Your task to perform on an android device: turn on wifi Image 0: 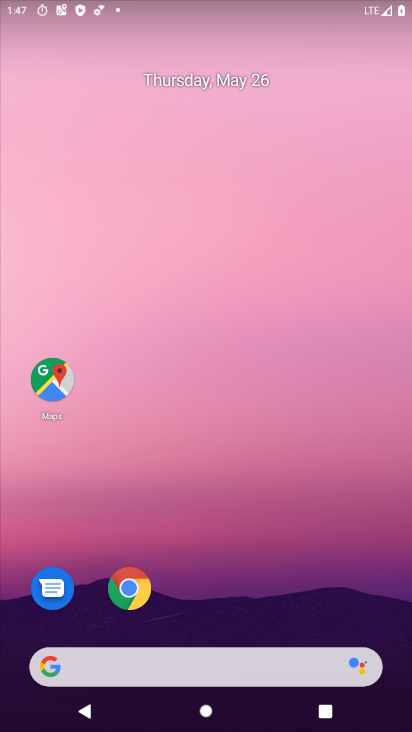
Step 0: drag from (385, 702) to (332, 153)
Your task to perform on an android device: turn on wifi Image 1: 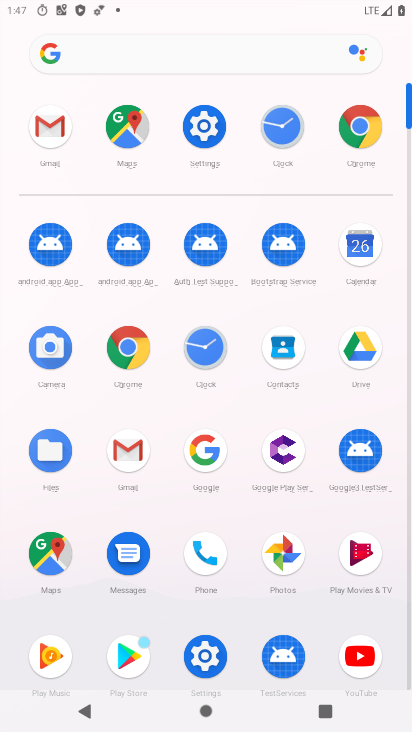
Step 1: click (199, 131)
Your task to perform on an android device: turn on wifi Image 2: 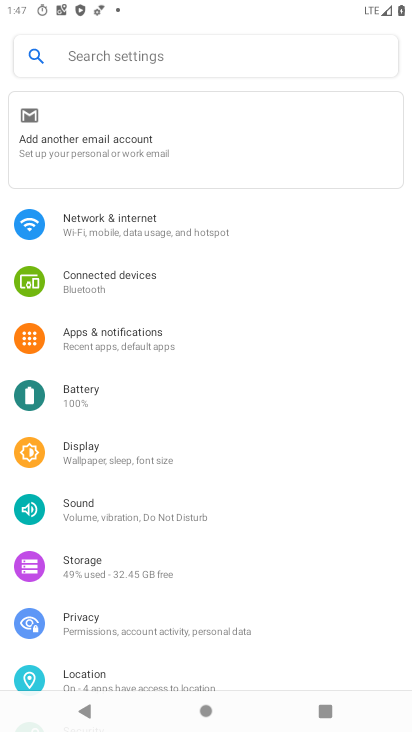
Step 2: click (131, 226)
Your task to perform on an android device: turn on wifi Image 3: 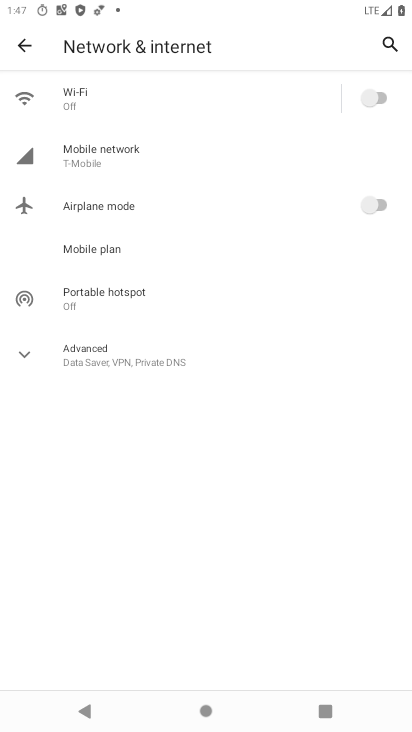
Step 3: click (374, 97)
Your task to perform on an android device: turn on wifi Image 4: 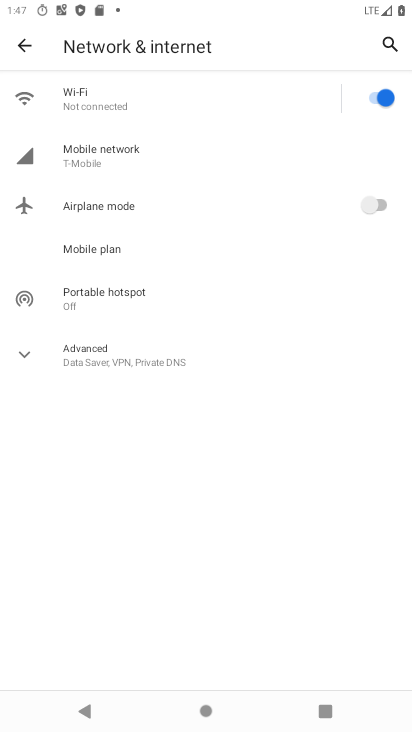
Step 4: task complete